Your task to perform on an android device: change alarm snooze length Image 0: 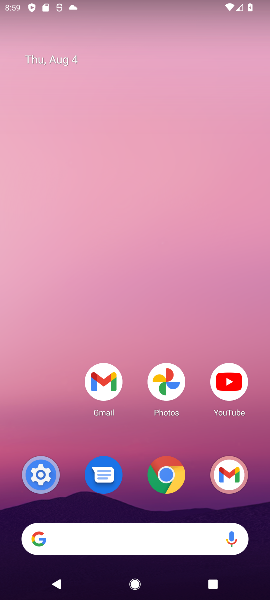
Step 0: drag from (139, 505) to (139, 194)
Your task to perform on an android device: change alarm snooze length Image 1: 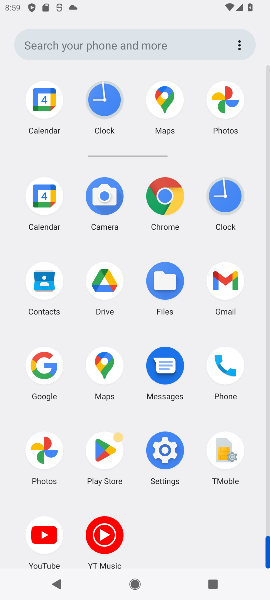
Step 1: click (220, 197)
Your task to perform on an android device: change alarm snooze length Image 2: 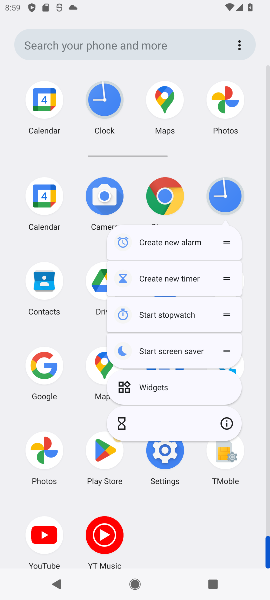
Step 2: click (224, 416)
Your task to perform on an android device: change alarm snooze length Image 3: 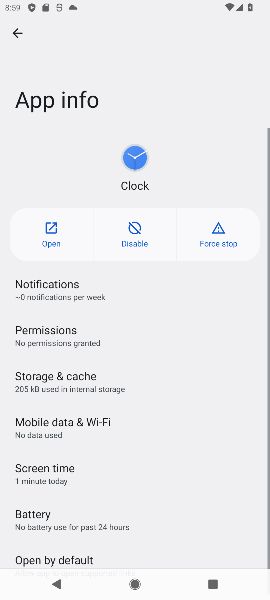
Step 3: click (34, 235)
Your task to perform on an android device: change alarm snooze length Image 4: 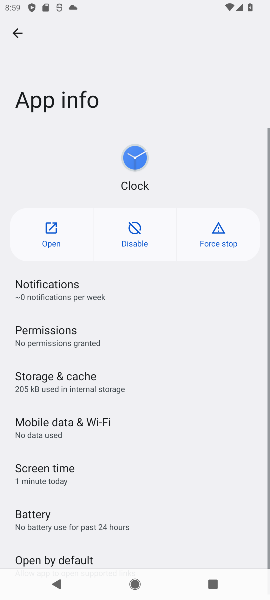
Step 4: click (38, 232)
Your task to perform on an android device: change alarm snooze length Image 5: 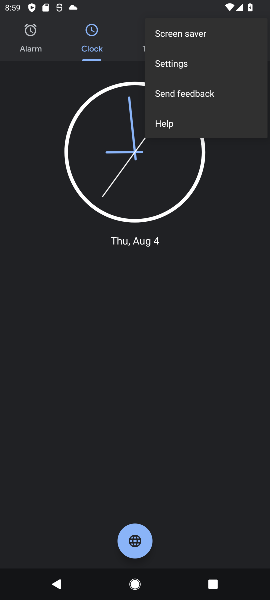
Step 5: click (213, 67)
Your task to perform on an android device: change alarm snooze length Image 6: 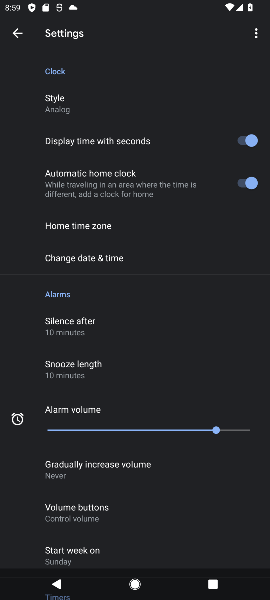
Step 6: drag from (181, 441) to (181, 232)
Your task to perform on an android device: change alarm snooze length Image 7: 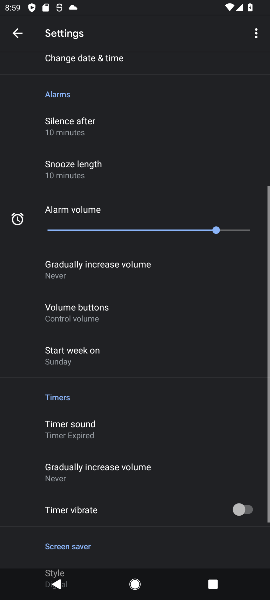
Step 7: drag from (170, 206) to (173, 581)
Your task to perform on an android device: change alarm snooze length Image 8: 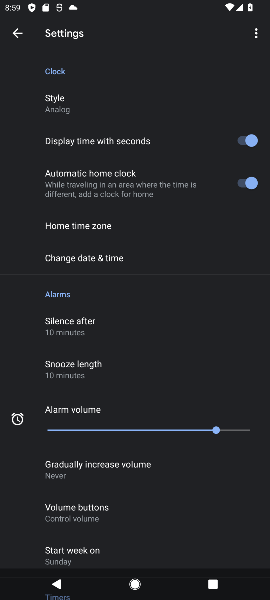
Step 8: click (110, 364)
Your task to perform on an android device: change alarm snooze length Image 9: 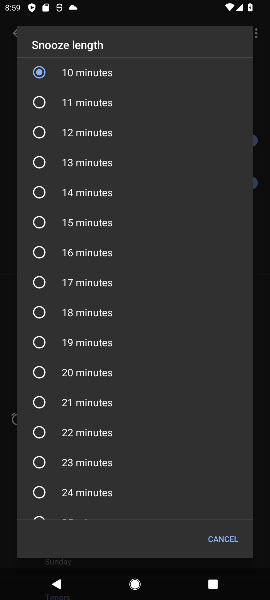
Step 9: drag from (143, 108) to (123, 496)
Your task to perform on an android device: change alarm snooze length Image 10: 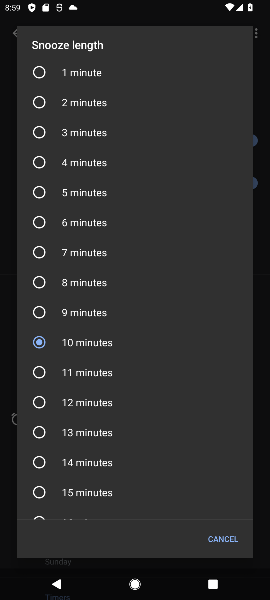
Step 10: drag from (84, 91) to (90, 324)
Your task to perform on an android device: change alarm snooze length Image 11: 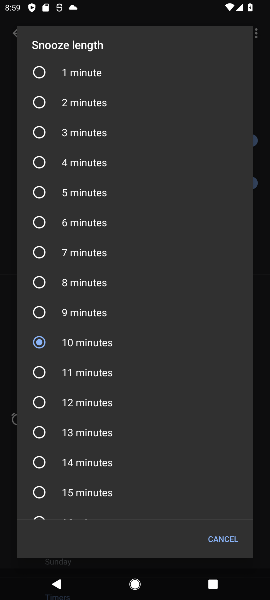
Step 11: click (43, 73)
Your task to perform on an android device: change alarm snooze length Image 12: 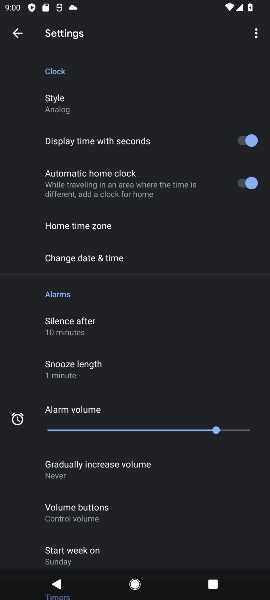
Step 12: drag from (178, 256) to (263, 288)
Your task to perform on an android device: change alarm snooze length Image 13: 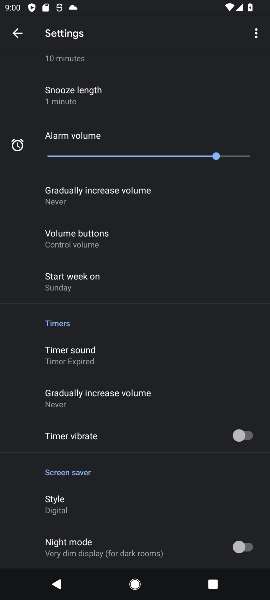
Step 13: drag from (126, 394) to (183, 440)
Your task to perform on an android device: change alarm snooze length Image 14: 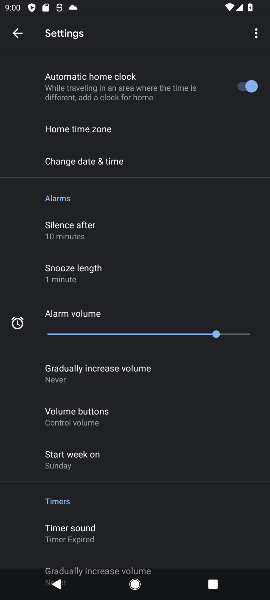
Step 14: click (97, 280)
Your task to perform on an android device: change alarm snooze length Image 15: 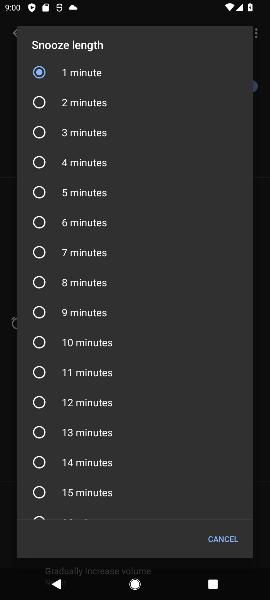
Step 15: click (44, 185)
Your task to perform on an android device: change alarm snooze length Image 16: 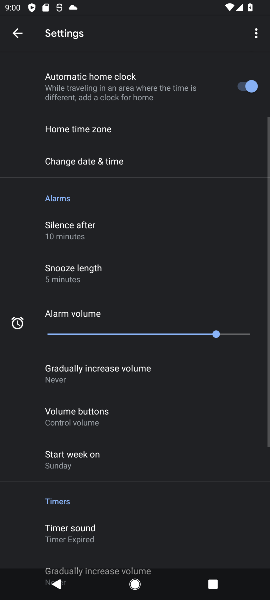
Step 16: task complete